Your task to perform on an android device: What is the recent news? Image 0: 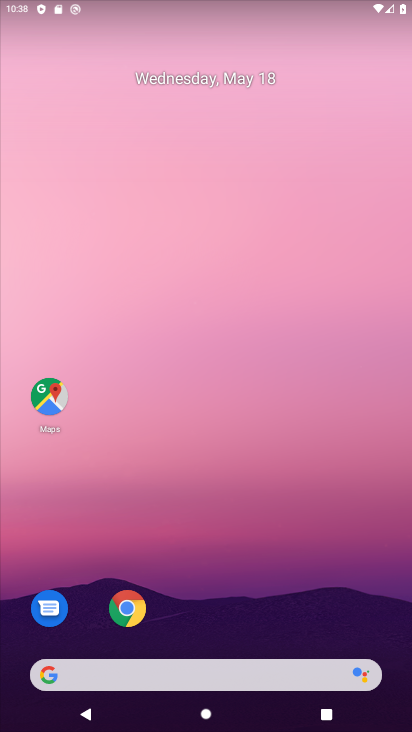
Step 0: press home button
Your task to perform on an android device: What is the recent news? Image 1: 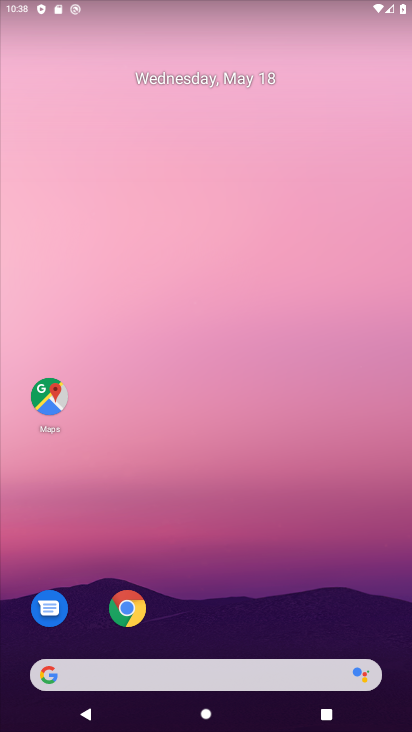
Step 1: click (134, 608)
Your task to perform on an android device: What is the recent news? Image 2: 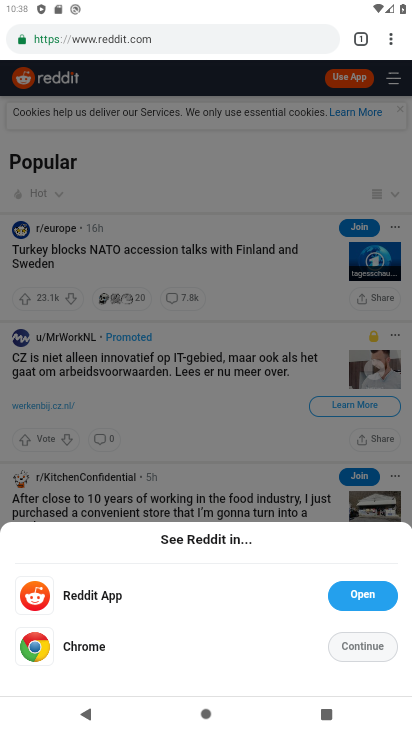
Step 2: click (228, 31)
Your task to perform on an android device: What is the recent news? Image 3: 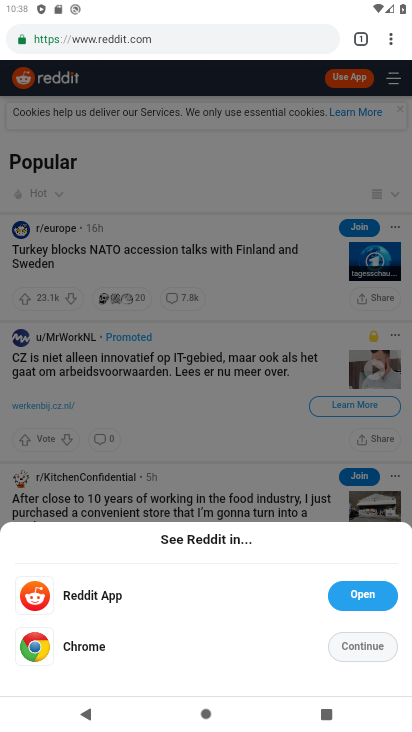
Step 3: click (228, 31)
Your task to perform on an android device: What is the recent news? Image 4: 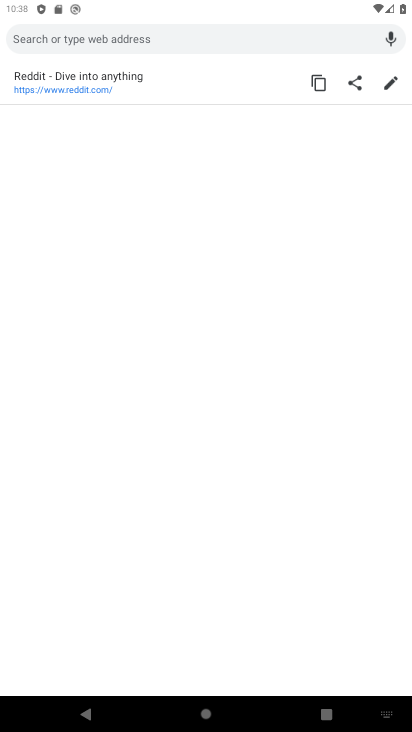
Step 4: type "What is the recent news?"
Your task to perform on an android device: What is the recent news? Image 5: 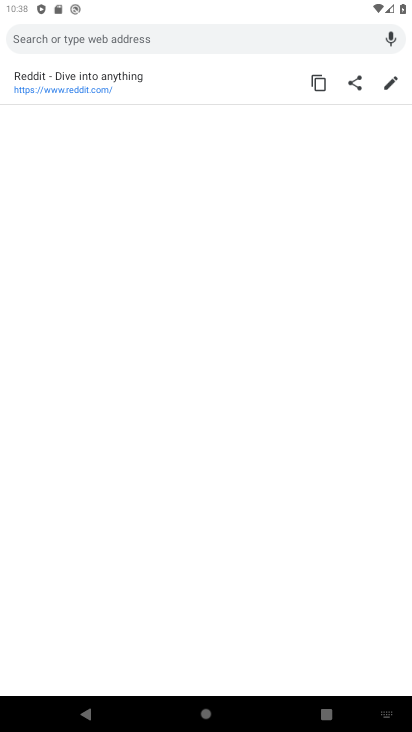
Step 5: click (29, 79)
Your task to perform on an android device: What is the recent news? Image 6: 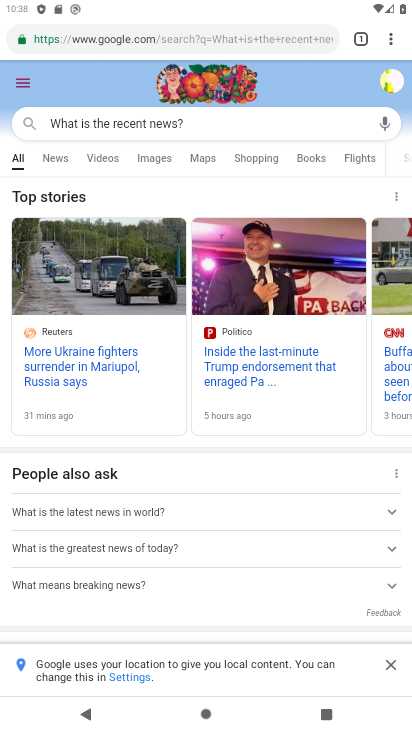
Step 6: task complete